Your task to perform on an android device: toggle sleep mode Image 0: 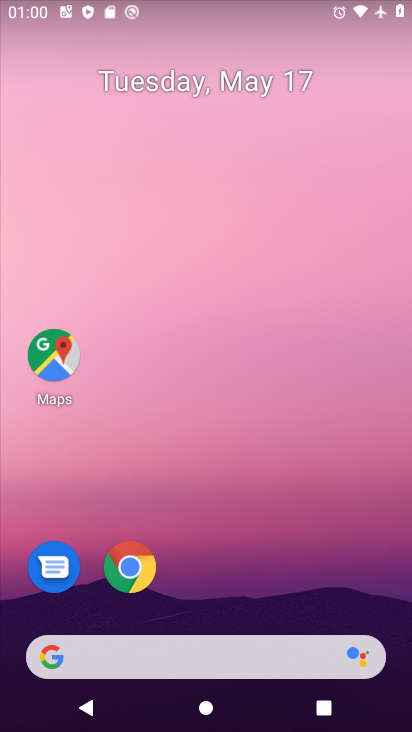
Step 0: drag from (242, 509) to (182, 41)
Your task to perform on an android device: toggle sleep mode Image 1: 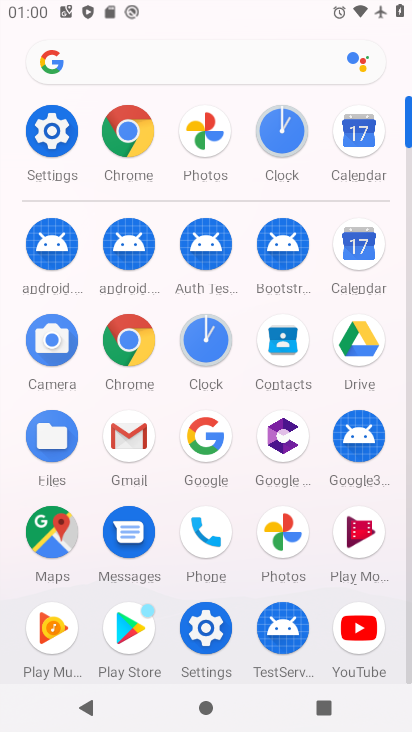
Step 1: click (41, 131)
Your task to perform on an android device: toggle sleep mode Image 2: 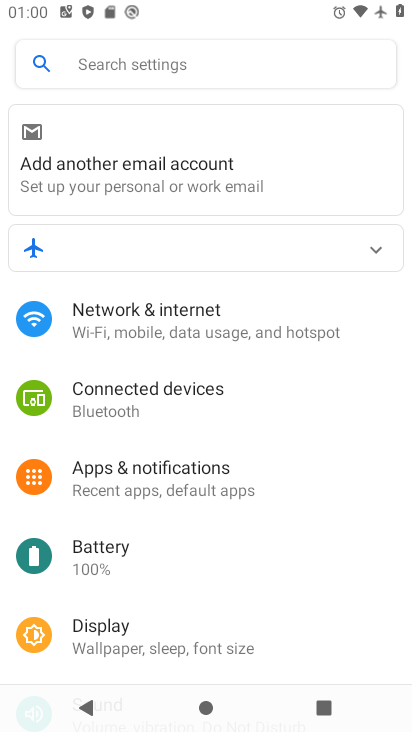
Step 2: click (145, 453)
Your task to perform on an android device: toggle sleep mode Image 3: 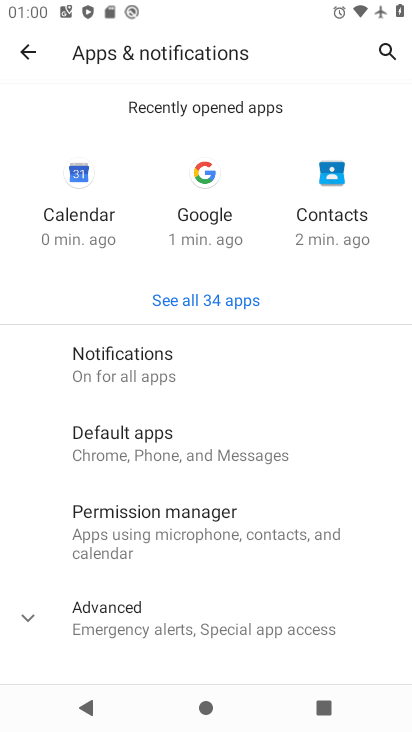
Step 3: task complete